Your task to perform on an android device: turn off location Image 0: 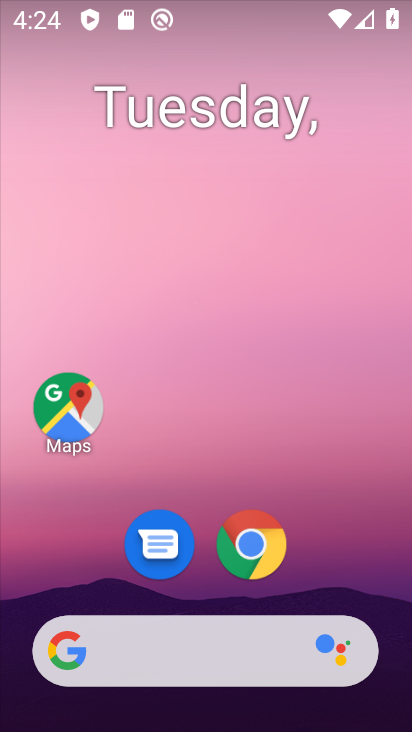
Step 0: drag from (202, 589) to (221, 330)
Your task to perform on an android device: turn off location Image 1: 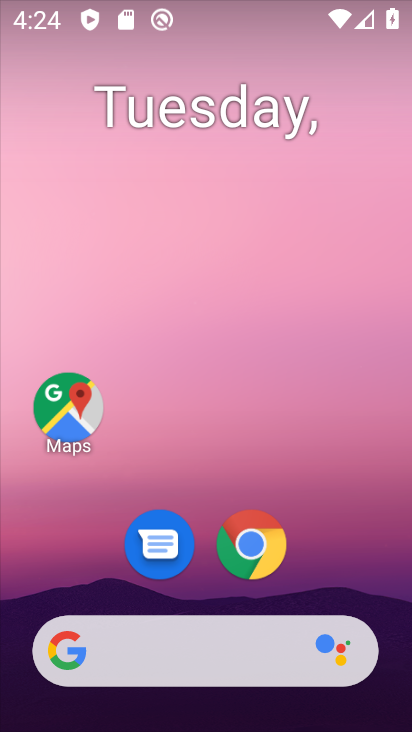
Step 1: drag from (200, 586) to (200, 337)
Your task to perform on an android device: turn off location Image 2: 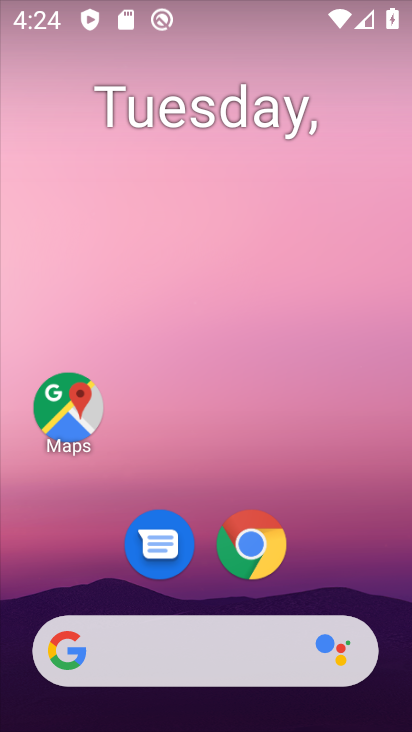
Step 2: drag from (201, 592) to (409, 9)
Your task to perform on an android device: turn off location Image 3: 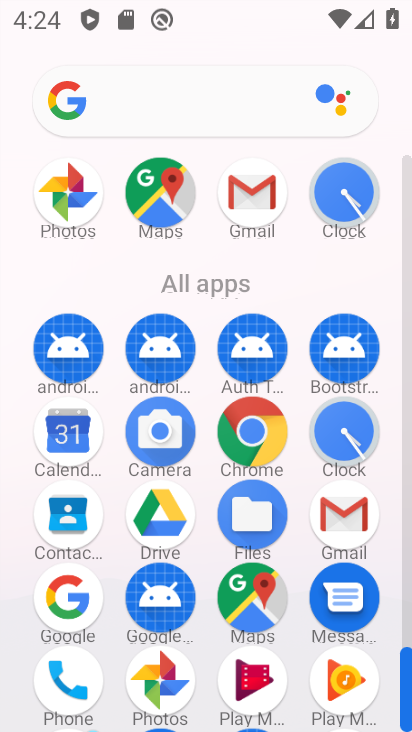
Step 3: drag from (200, 530) to (215, 228)
Your task to perform on an android device: turn off location Image 4: 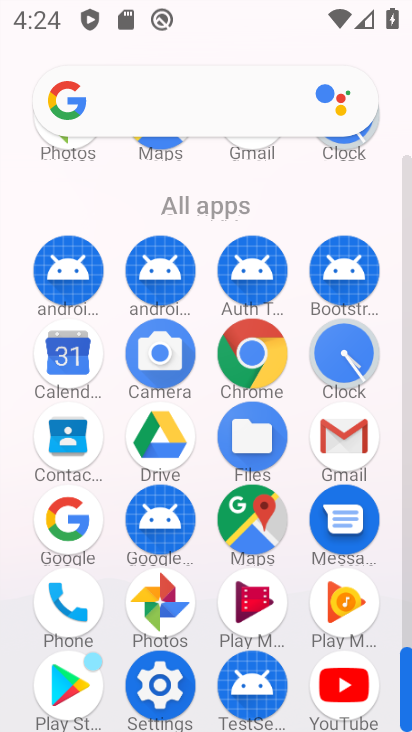
Step 4: click (171, 678)
Your task to perform on an android device: turn off location Image 5: 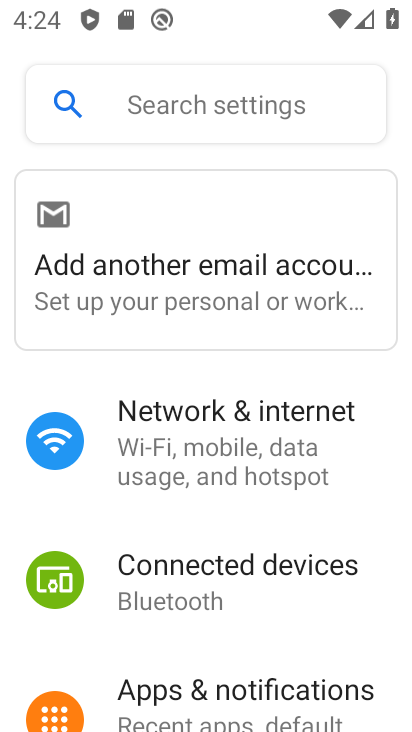
Step 5: drag from (223, 638) to (255, 376)
Your task to perform on an android device: turn off location Image 6: 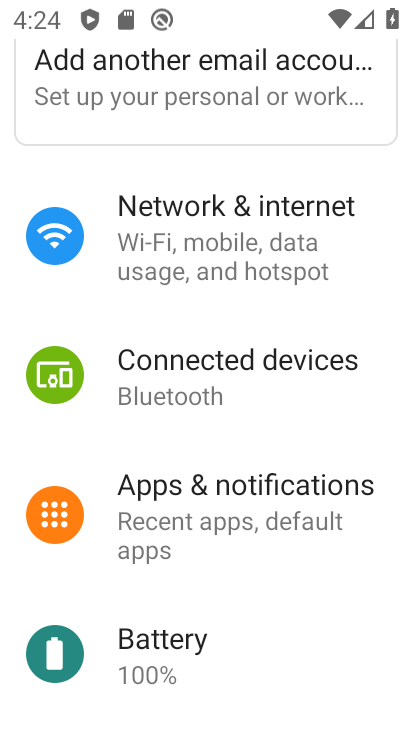
Step 6: drag from (232, 580) to (244, 367)
Your task to perform on an android device: turn off location Image 7: 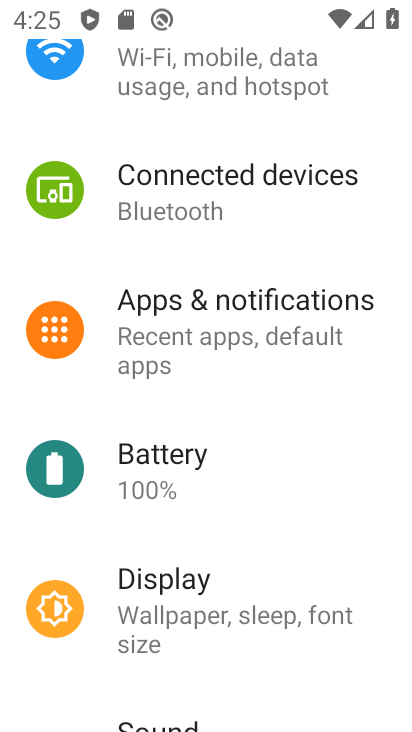
Step 7: drag from (209, 604) to (223, 413)
Your task to perform on an android device: turn off location Image 8: 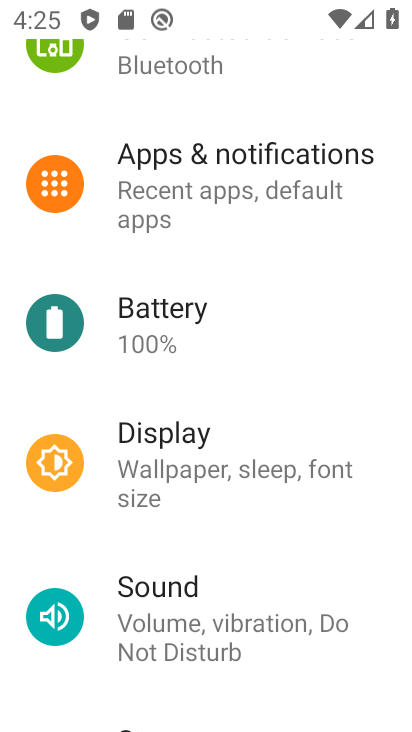
Step 8: drag from (163, 634) to (272, 151)
Your task to perform on an android device: turn off location Image 9: 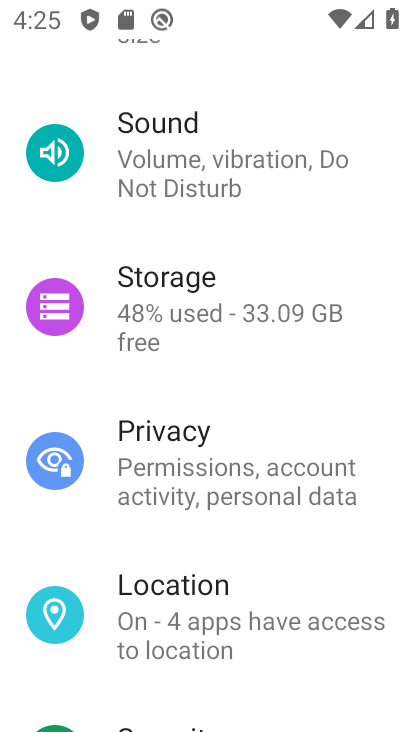
Step 9: click (197, 634)
Your task to perform on an android device: turn off location Image 10: 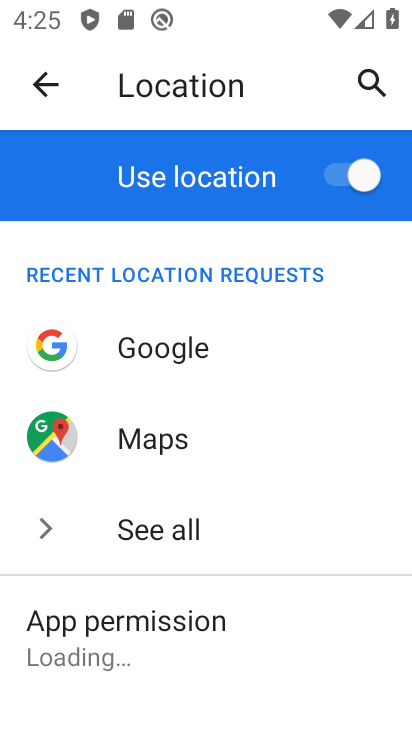
Step 10: click (312, 195)
Your task to perform on an android device: turn off location Image 11: 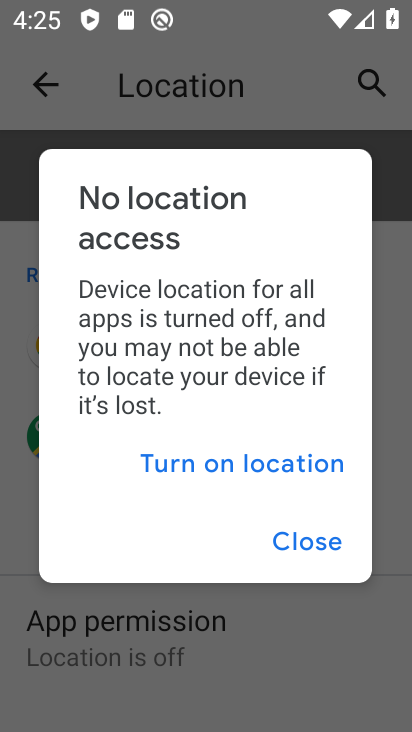
Step 11: click (325, 538)
Your task to perform on an android device: turn off location Image 12: 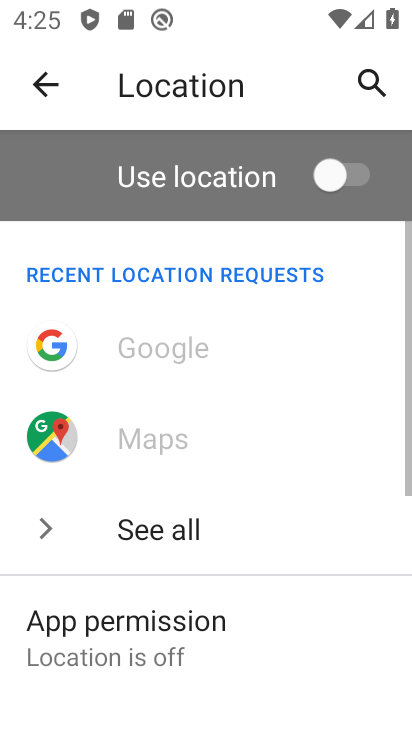
Step 12: task complete